Your task to perform on an android device: Open Youtube and go to the subscriptions tab Image 0: 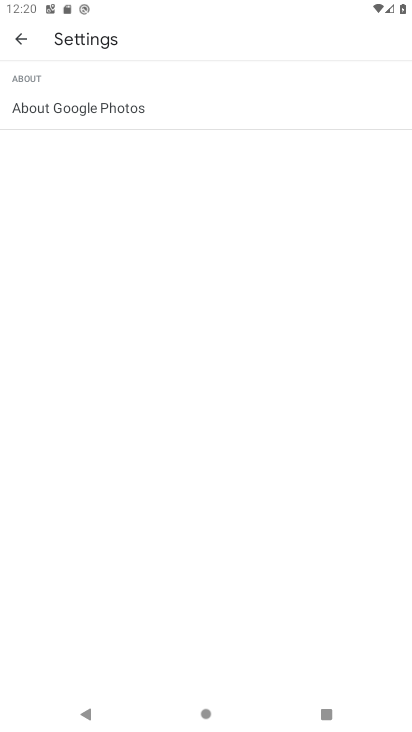
Step 0: press home button
Your task to perform on an android device: Open Youtube and go to the subscriptions tab Image 1: 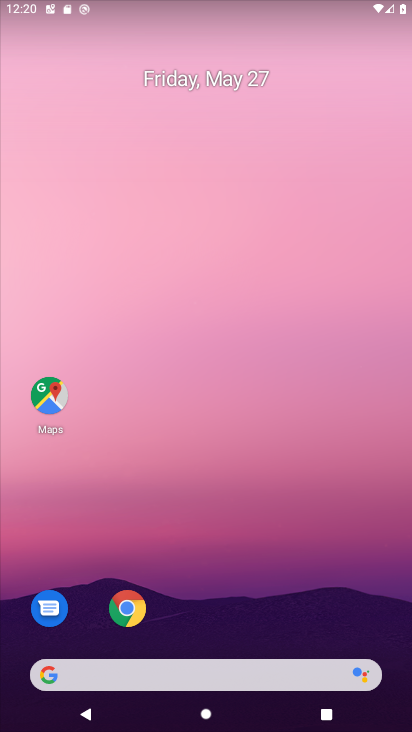
Step 1: drag from (392, 711) to (393, 93)
Your task to perform on an android device: Open Youtube and go to the subscriptions tab Image 2: 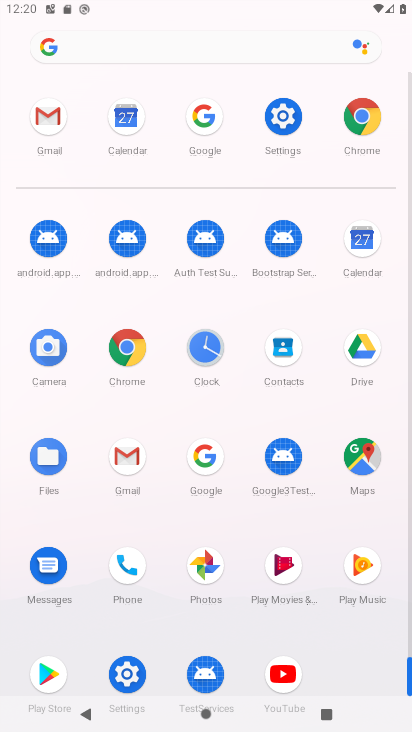
Step 2: click (280, 675)
Your task to perform on an android device: Open Youtube and go to the subscriptions tab Image 3: 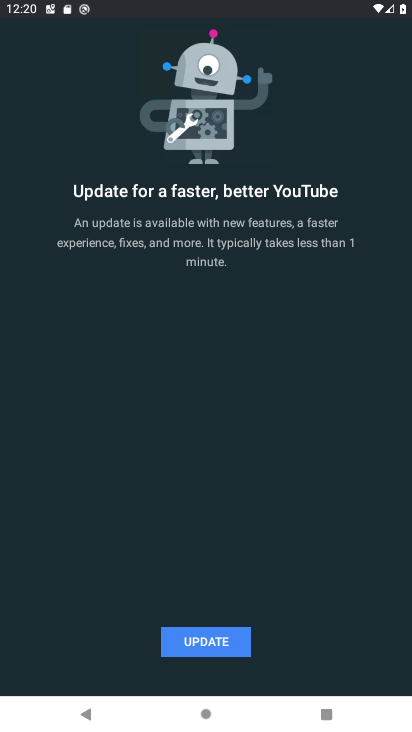
Step 3: click (214, 629)
Your task to perform on an android device: Open Youtube and go to the subscriptions tab Image 4: 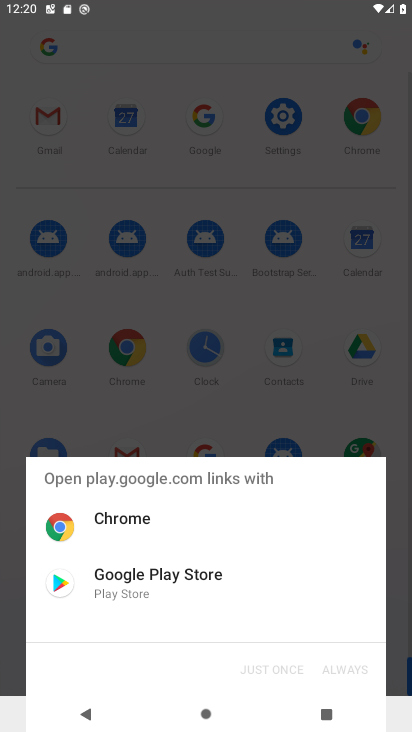
Step 4: click (125, 579)
Your task to perform on an android device: Open Youtube and go to the subscriptions tab Image 5: 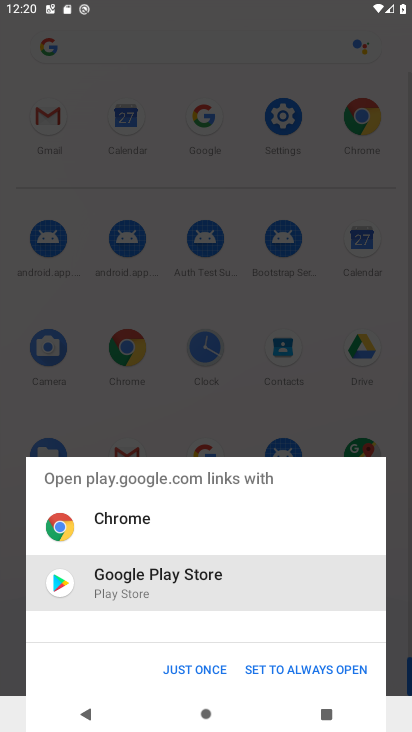
Step 5: click (206, 668)
Your task to perform on an android device: Open Youtube and go to the subscriptions tab Image 6: 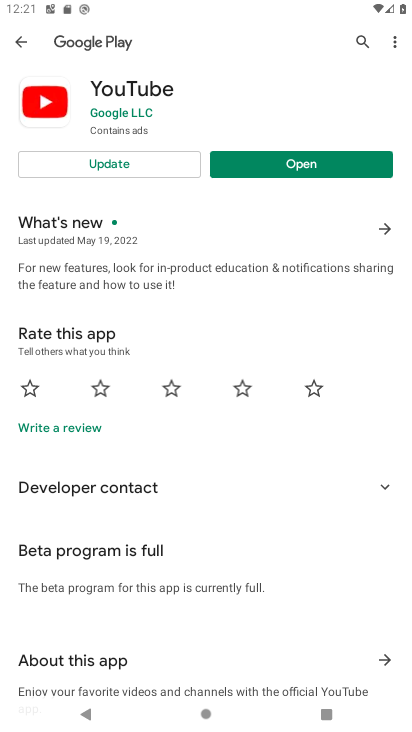
Step 6: click (136, 157)
Your task to perform on an android device: Open Youtube and go to the subscriptions tab Image 7: 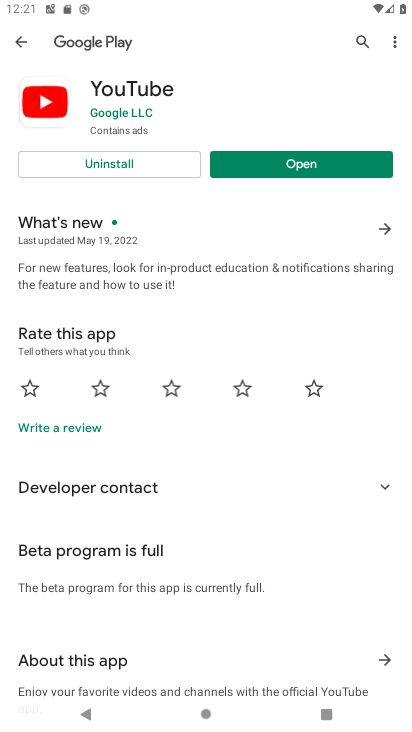
Step 7: click (284, 166)
Your task to perform on an android device: Open Youtube and go to the subscriptions tab Image 8: 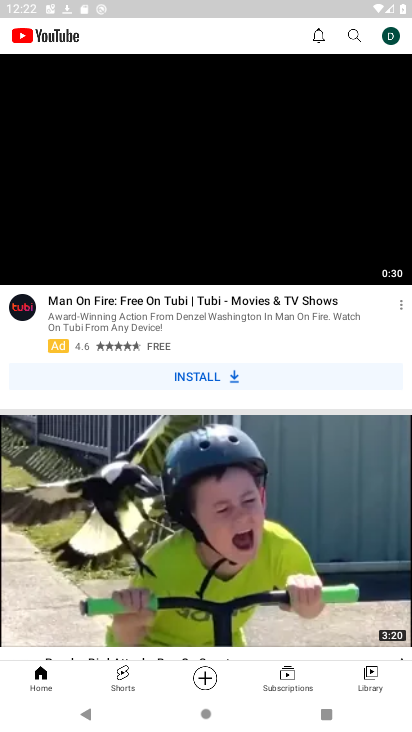
Step 8: click (287, 677)
Your task to perform on an android device: Open Youtube and go to the subscriptions tab Image 9: 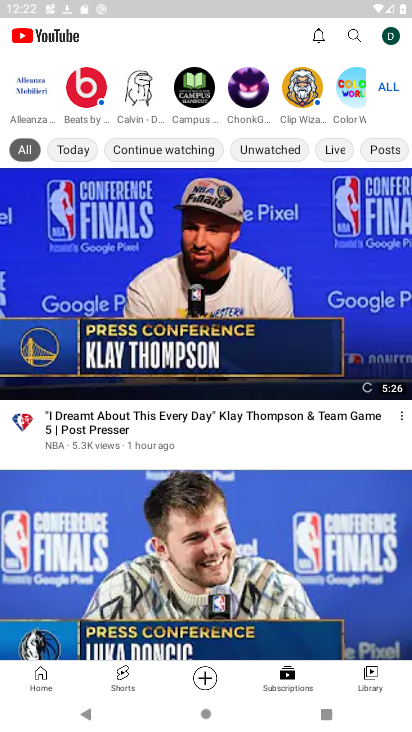
Step 9: task complete